Your task to perform on an android device: What's the weather today? Image 0: 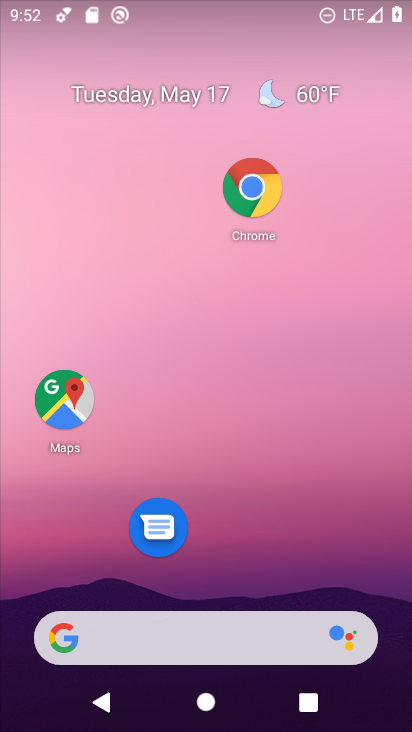
Step 0: drag from (307, 561) to (358, 65)
Your task to perform on an android device: What's the weather today? Image 1: 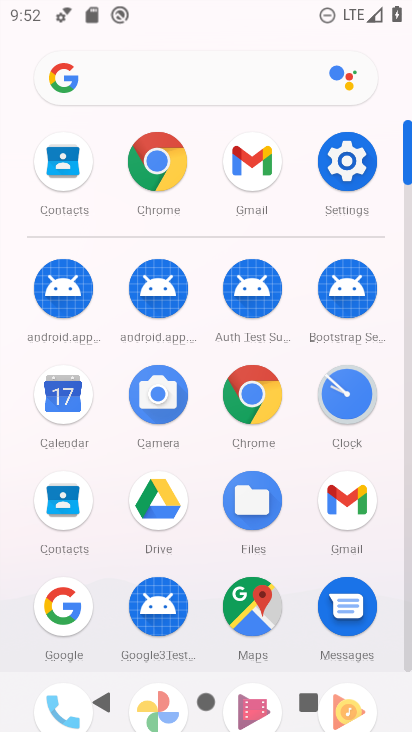
Step 1: click (188, 72)
Your task to perform on an android device: What's the weather today? Image 2: 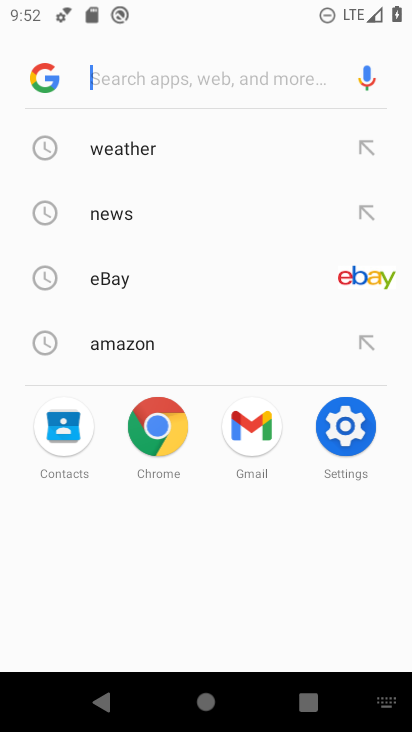
Step 2: click (203, 126)
Your task to perform on an android device: What's the weather today? Image 3: 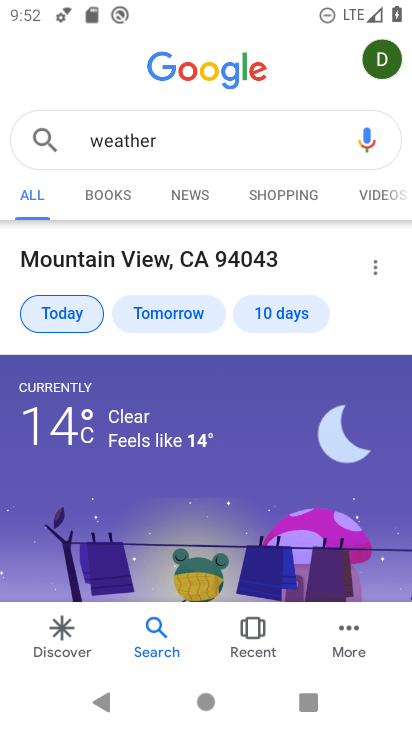
Step 3: task complete